Your task to perform on an android device: move a message to another label in the gmail app Image 0: 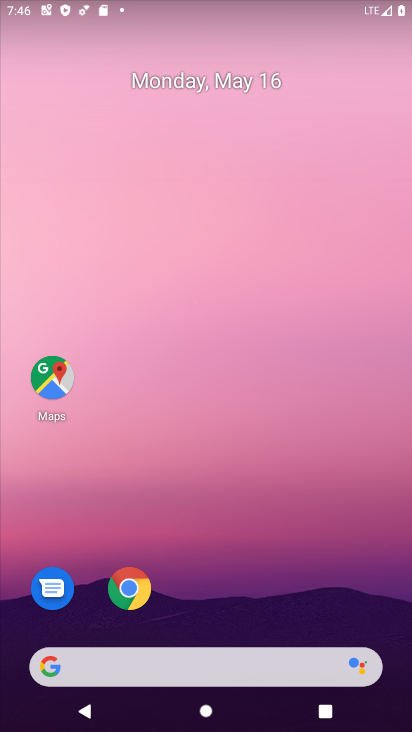
Step 0: drag from (213, 548) to (170, 54)
Your task to perform on an android device: move a message to another label in the gmail app Image 1: 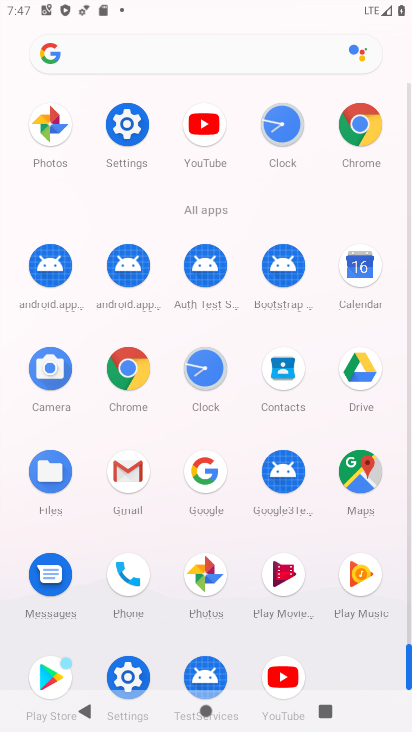
Step 1: click (123, 468)
Your task to perform on an android device: move a message to another label in the gmail app Image 2: 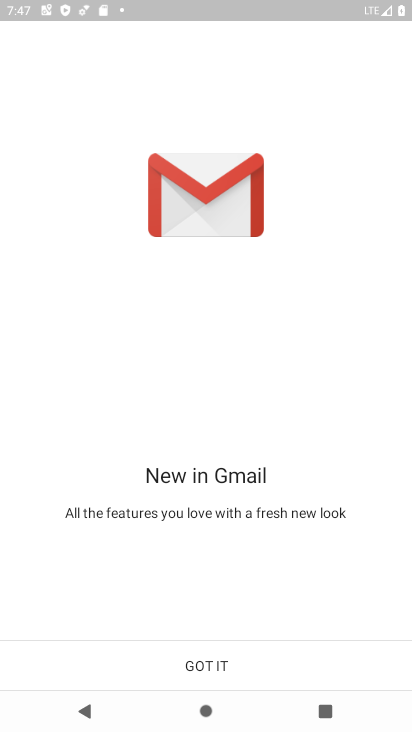
Step 2: click (198, 664)
Your task to perform on an android device: move a message to another label in the gmail app Image 3: 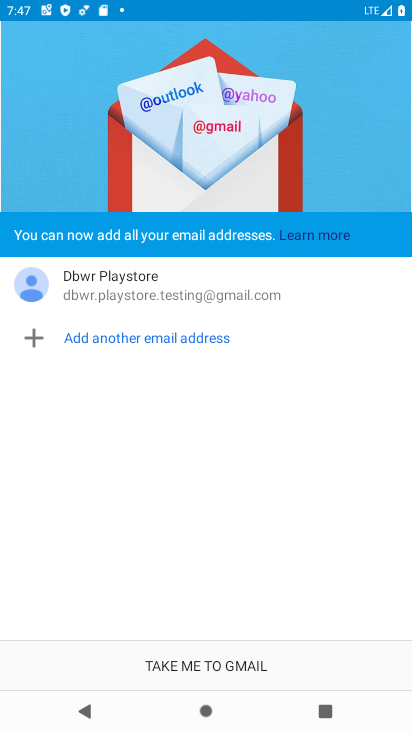
Step 3: click (201, 666)
Your task to perform on an android device: move a message to another label in the gmail app Image 4: 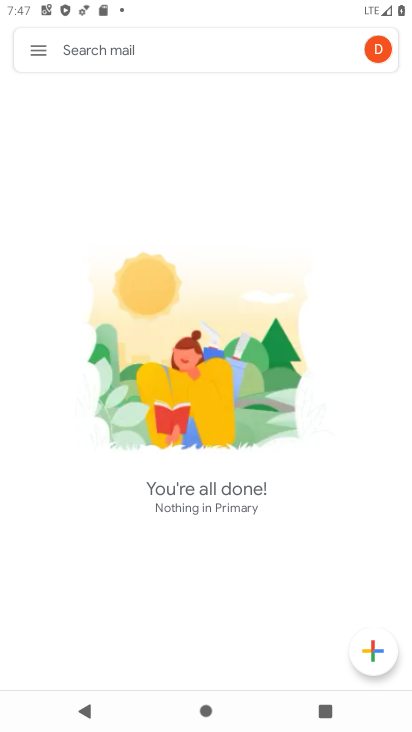
Step 4: click (32, 38)
Your task to perform on an android device: move a message to another label in the gmail app Image 5: 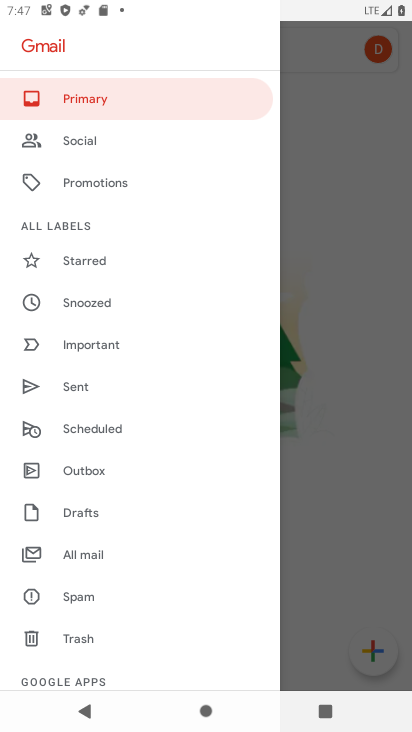
Step 5: click (92, 562)
Your task to perform on an android device: move a message to another label in the gmail app Image 6: 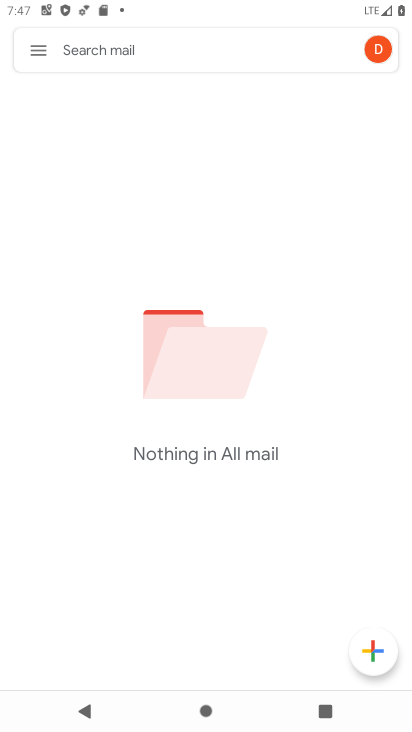
Step 6: click (38, 56)
Your task to perform on an android device: move a message to another label in the gmail app Image 7: 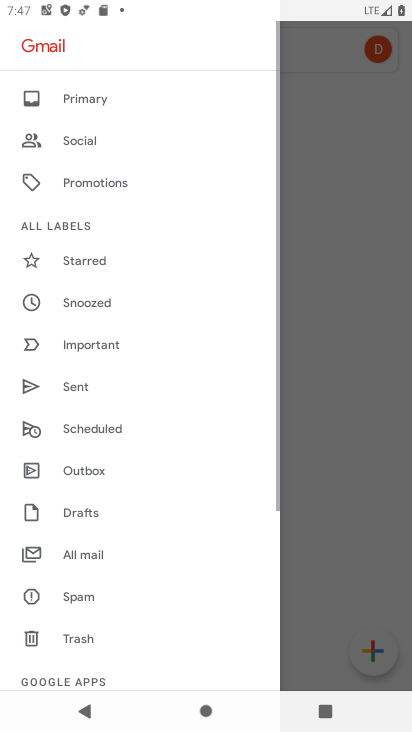
Step 7: drag from (136, 169) to (174, 559)
Your task to perform on an android device: move a message to another label in the gmail app Image 8: 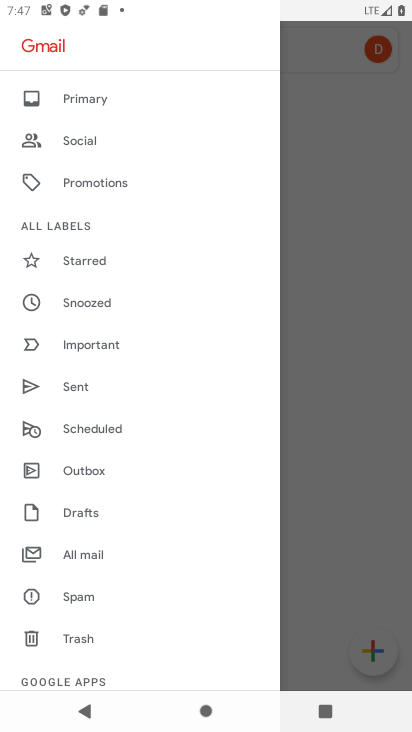
Step 8: click (119, 101)
Your task to perform on an android device: move a message to another label in the gmail app Image 9: 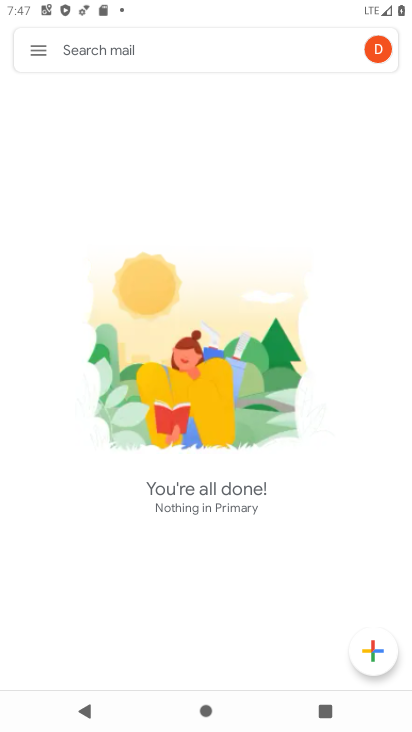
Step 9: click (46, 41)
Your task to perform on an android device: move a message to another label in the gmail app Image 10: 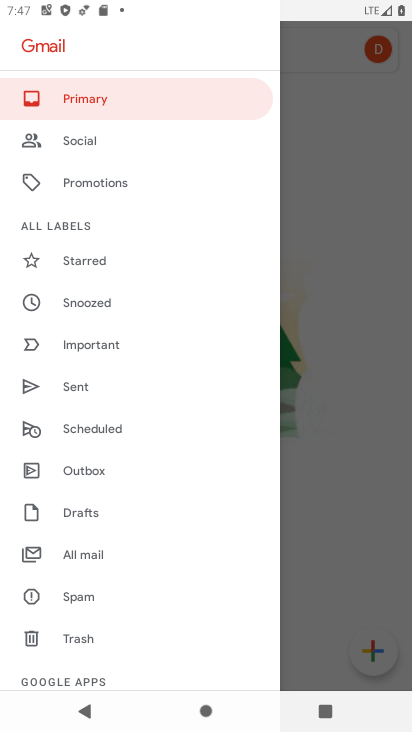
Step 10: click (106, 551)
Your task to perform on an android device: move a message to another label in the gmail app Image 11: 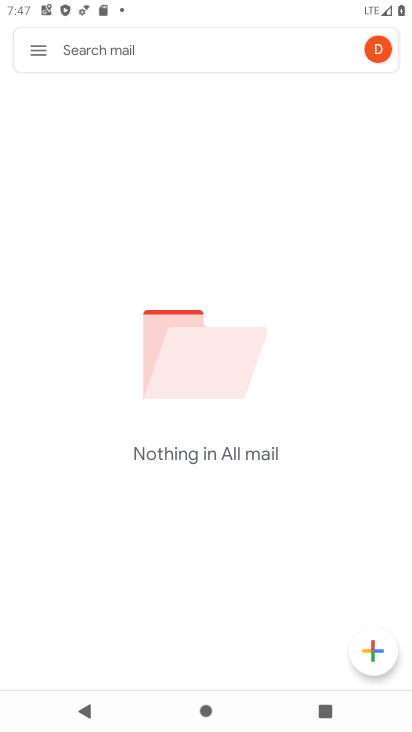
Step 11: task complete